Your task to perform on an android device: Open internet settings Image 0: 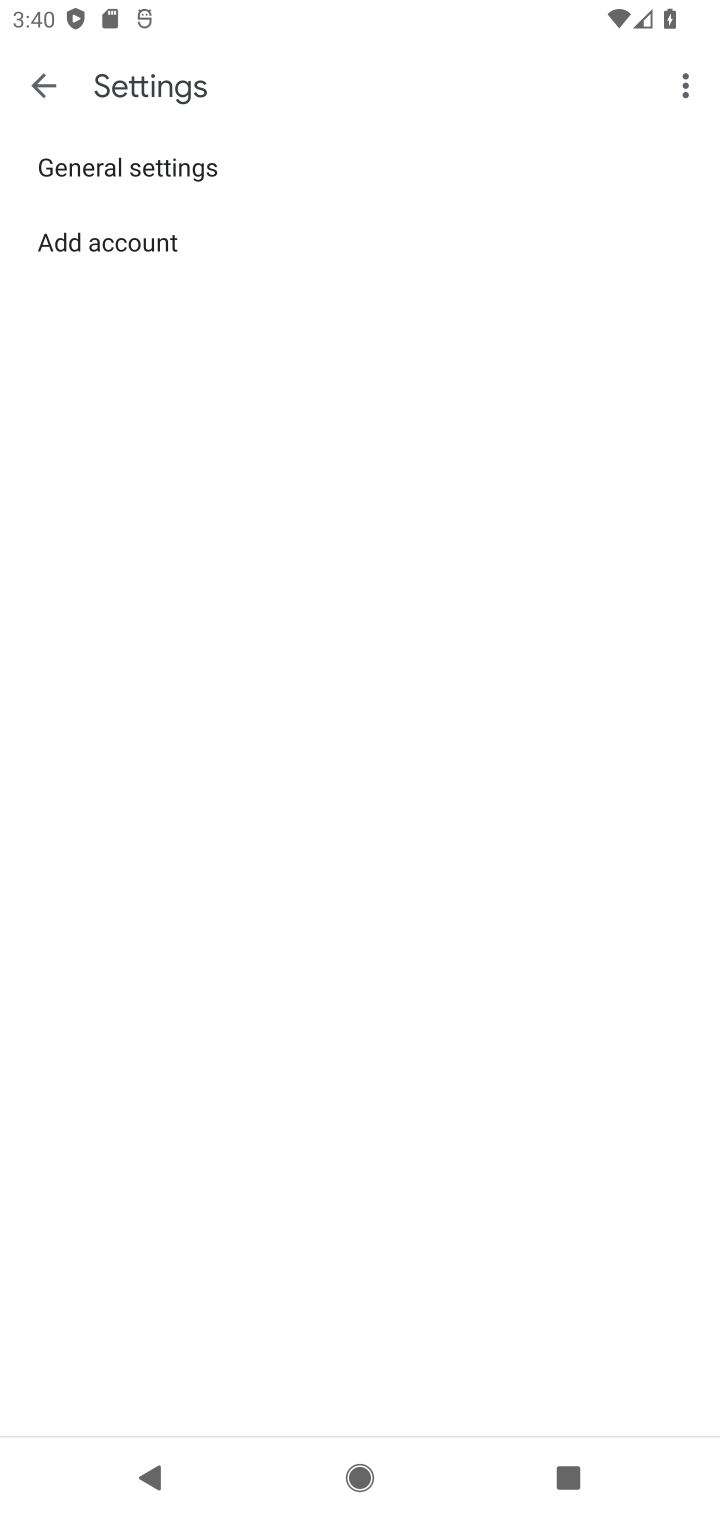
Step 0: press home button
Your task to perform on an android device: Open internet settings Image 1: 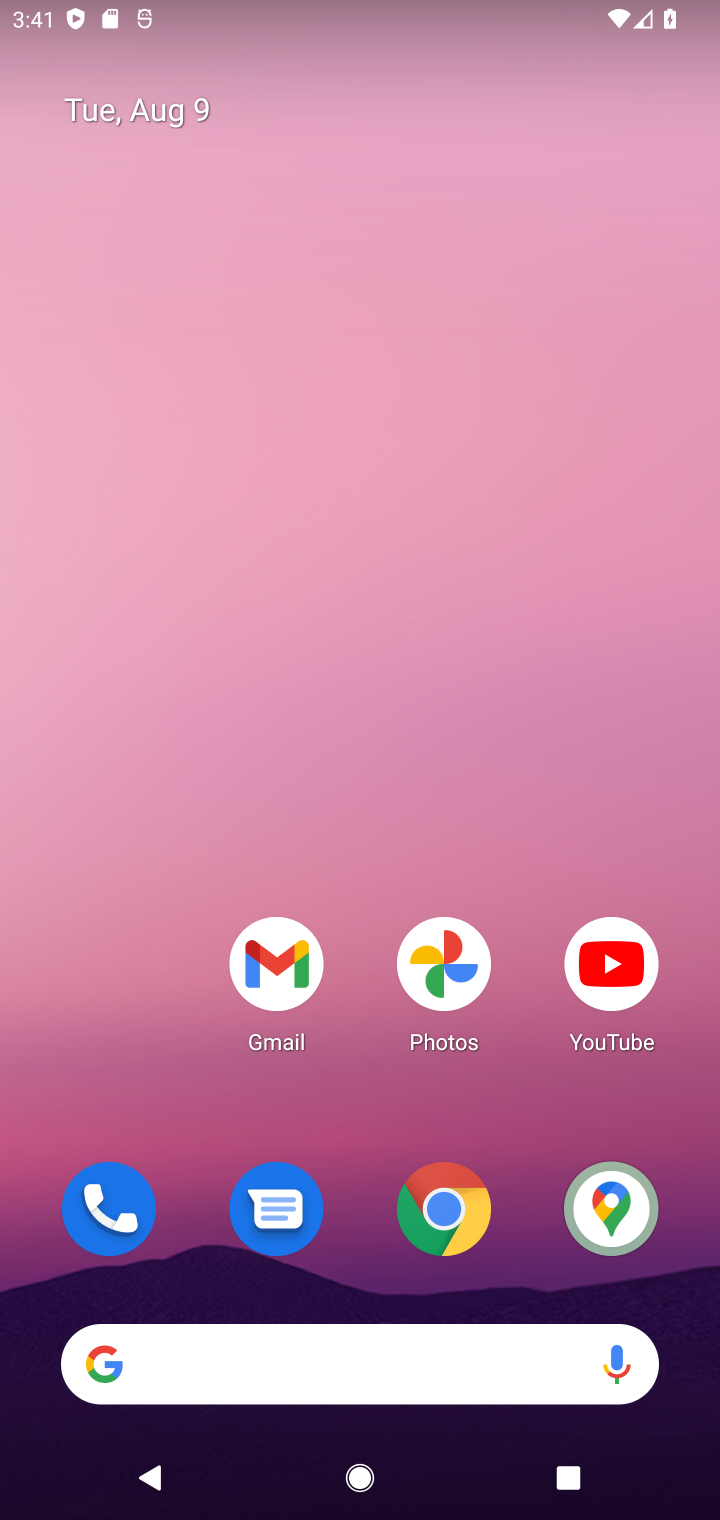
Step 1: drag from (265, 407) to (217, 23)
Your task to perform on an android device: Open internet settings Image 2: 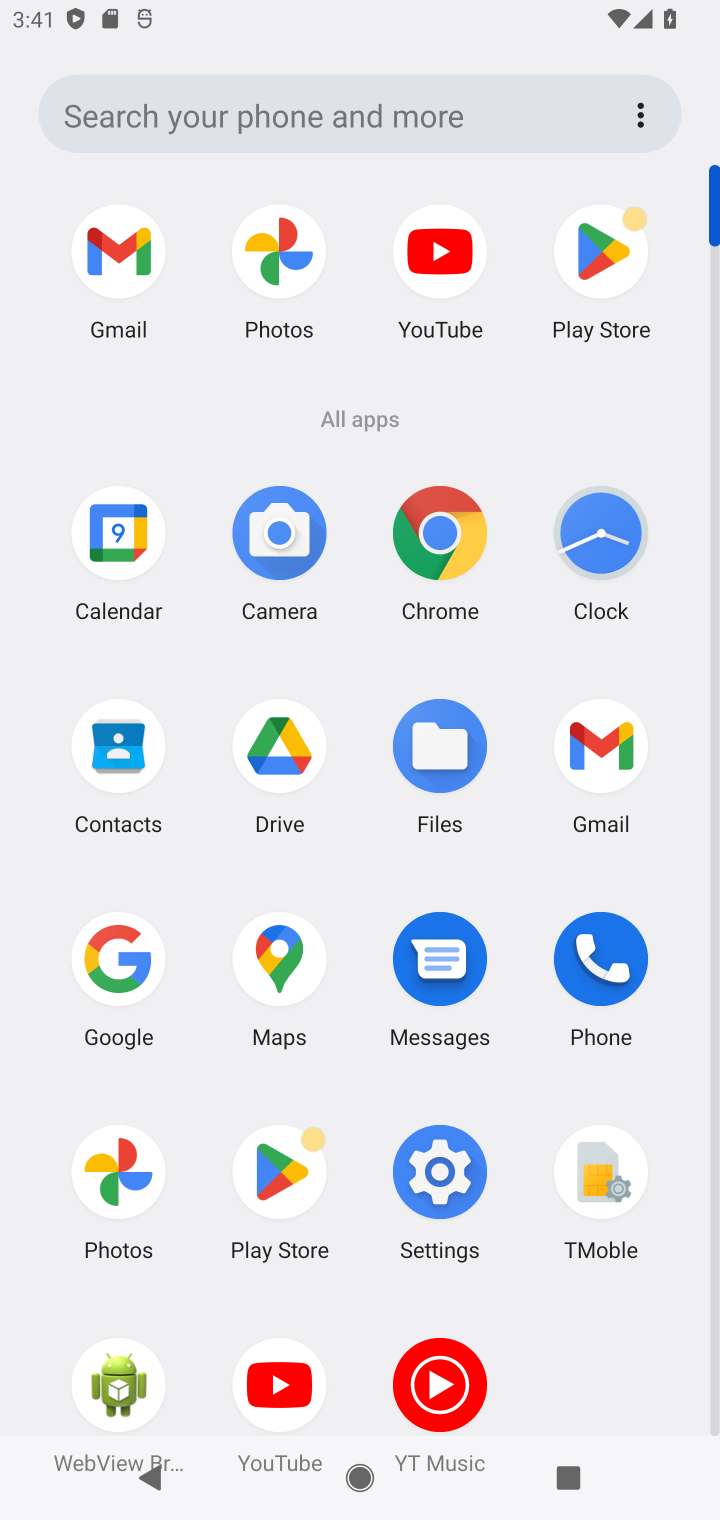
Step 2: click (444, 1160)
Your task to perform on an android device: Open internet settings Image 3: 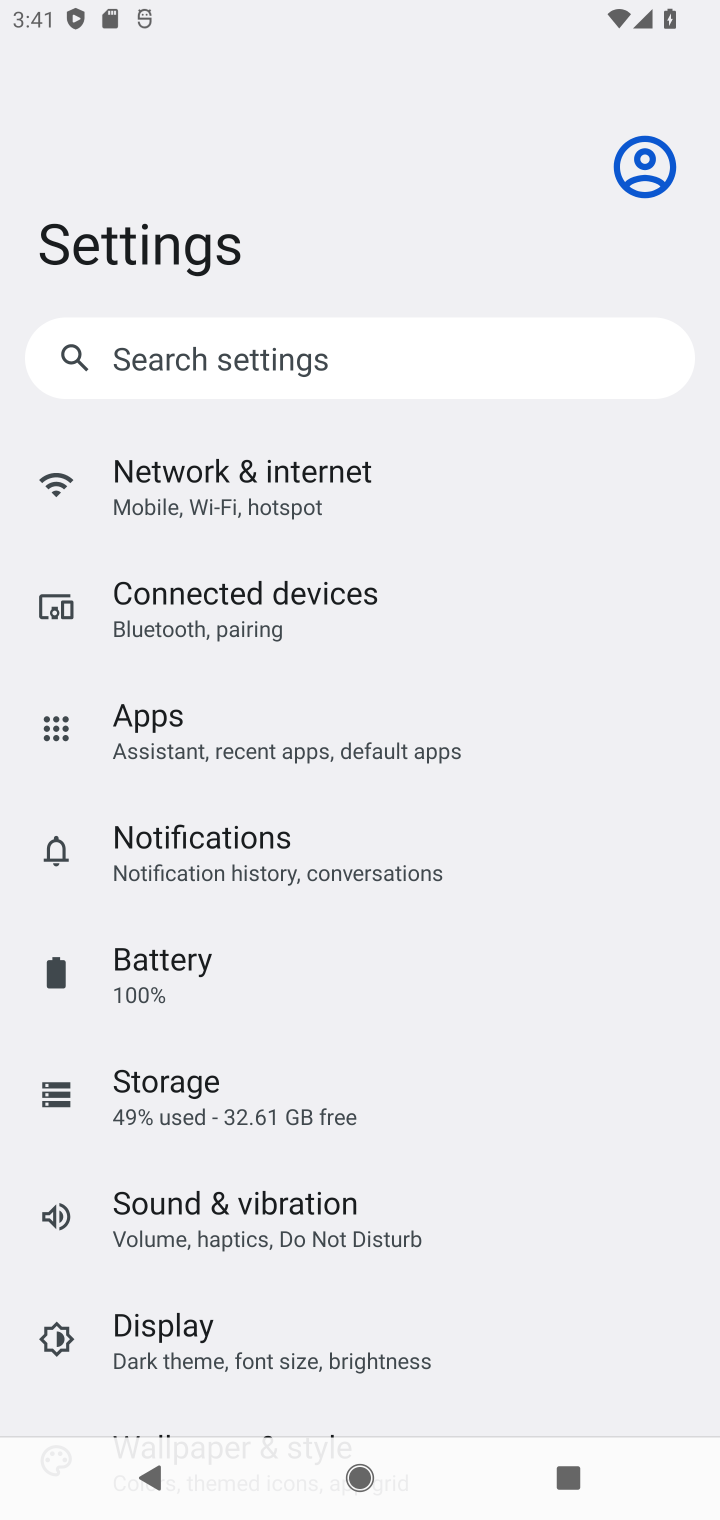
Step 3: click (210, 479)
Your task to perform on an android device: Open internet settings Image 4: 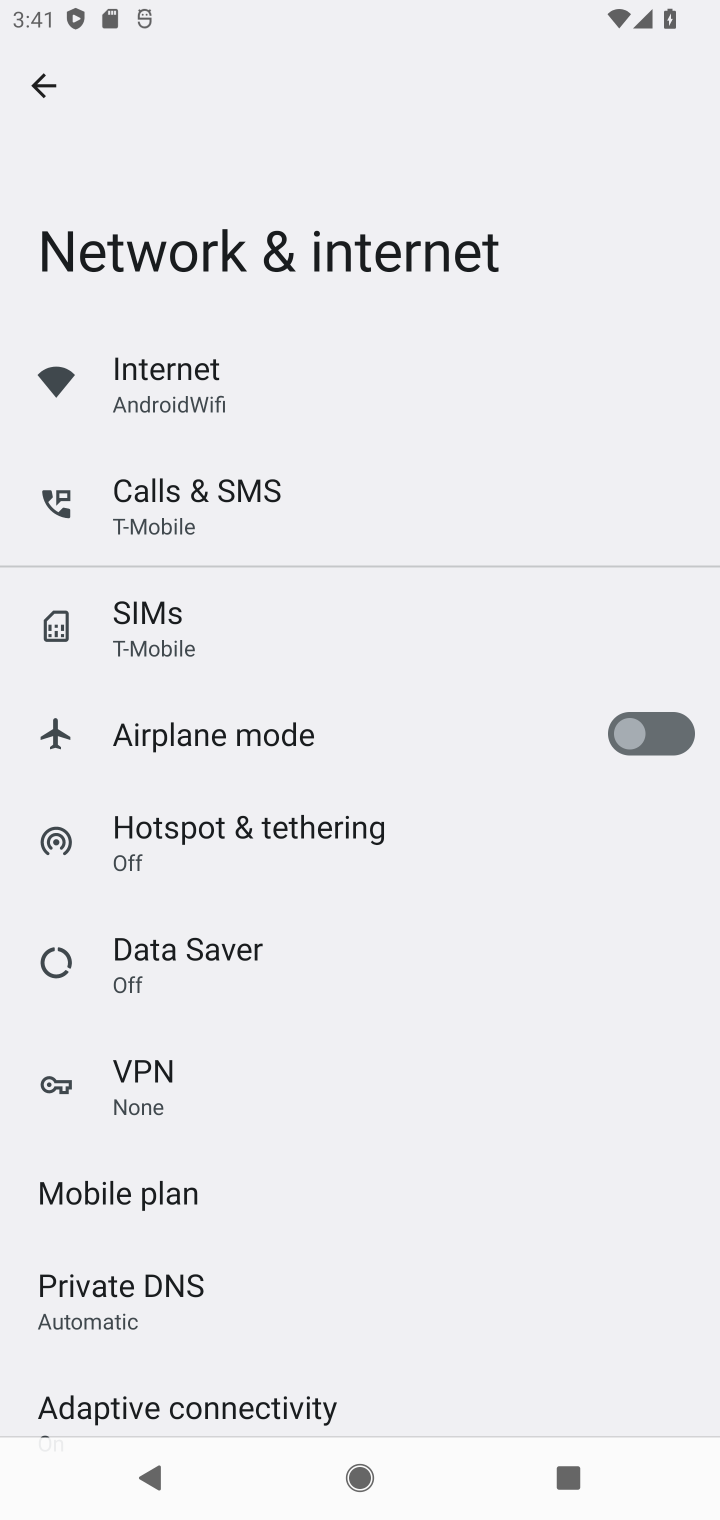
Step 4: click (187, 354)
Your task to perform on an android device: Open internet settings Image 5: 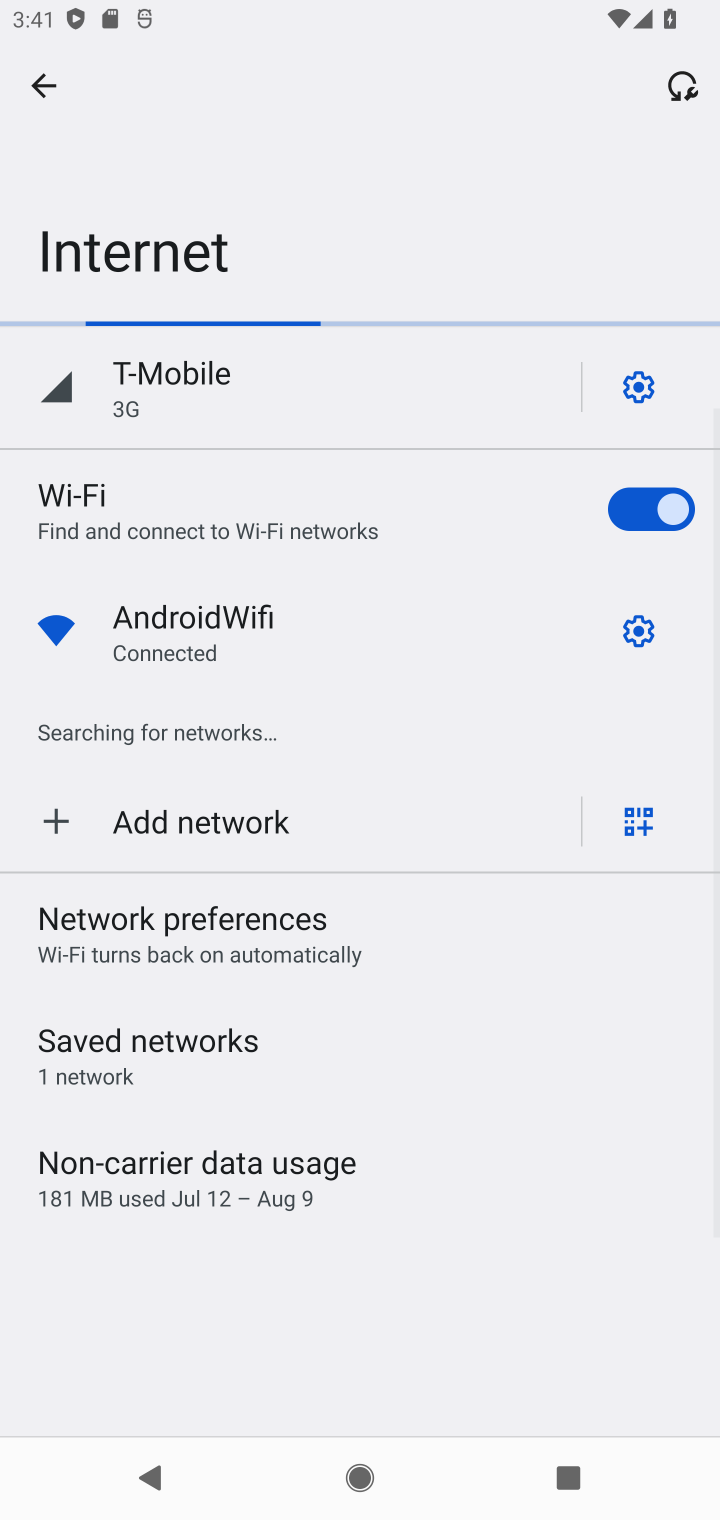
Step 5: task complete